Your task to perform on an android device: delete the emails in spam in the gmail app Image 0: 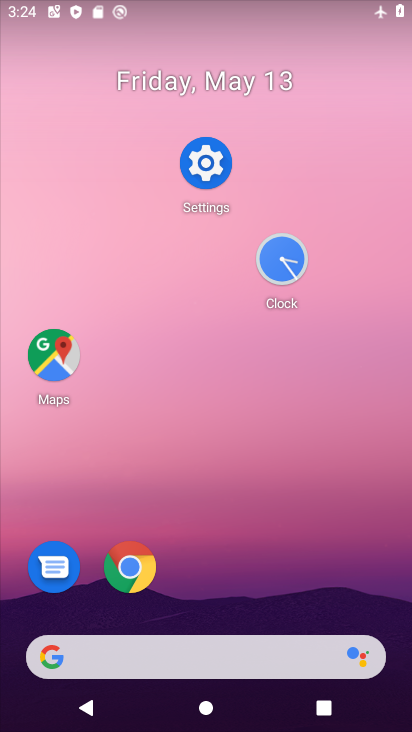
Step 0: drag from (242, 573) to (200, 24)
Your task to perform on an android device: delete the emails in spam in the gmail app Image 1: 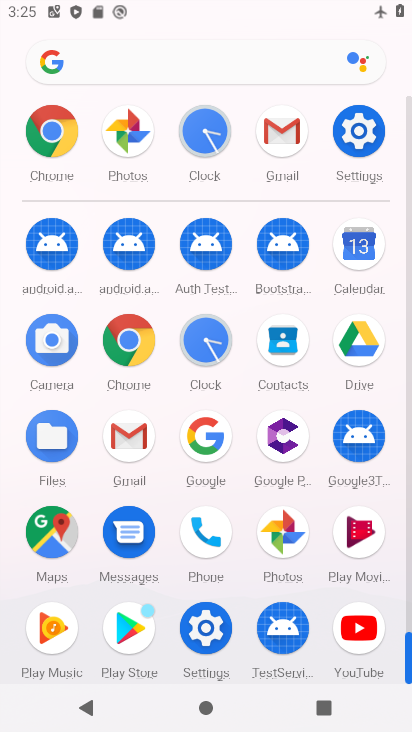
Step 1: click (274, 158)
Your task to perform on an android device: delete the emails in spam in the gmail app Image 2: 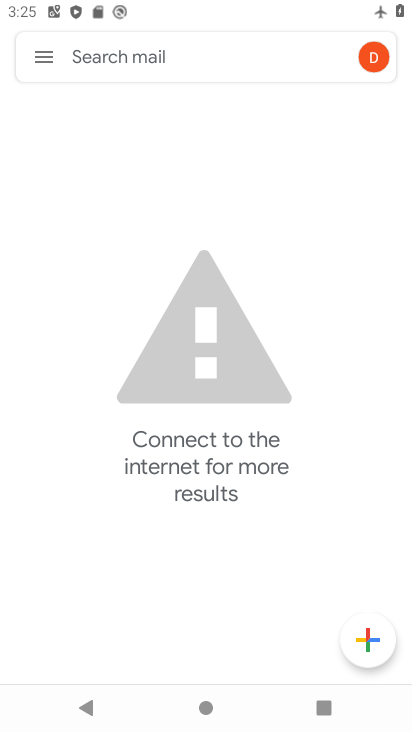
Step 2: click (37, 65)
Your task to perform on an android device: delete the emails in spam in the gmail app Image 3: 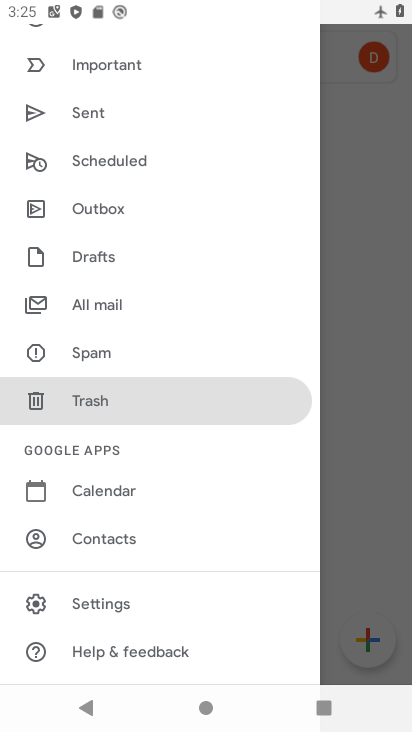
Step 3: click (93, 342)
Your task to perform on an android device: delete the emails in spam in the gmail app Image 4: 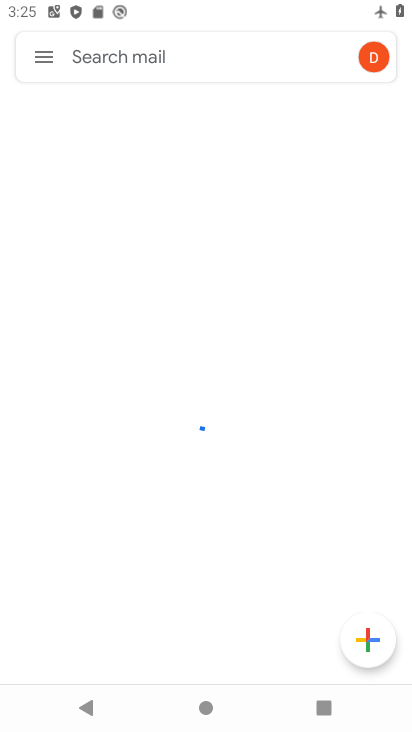
Step 4: task complete